Your task to perform on an android device: Open a new tab in Chrome Image 0: 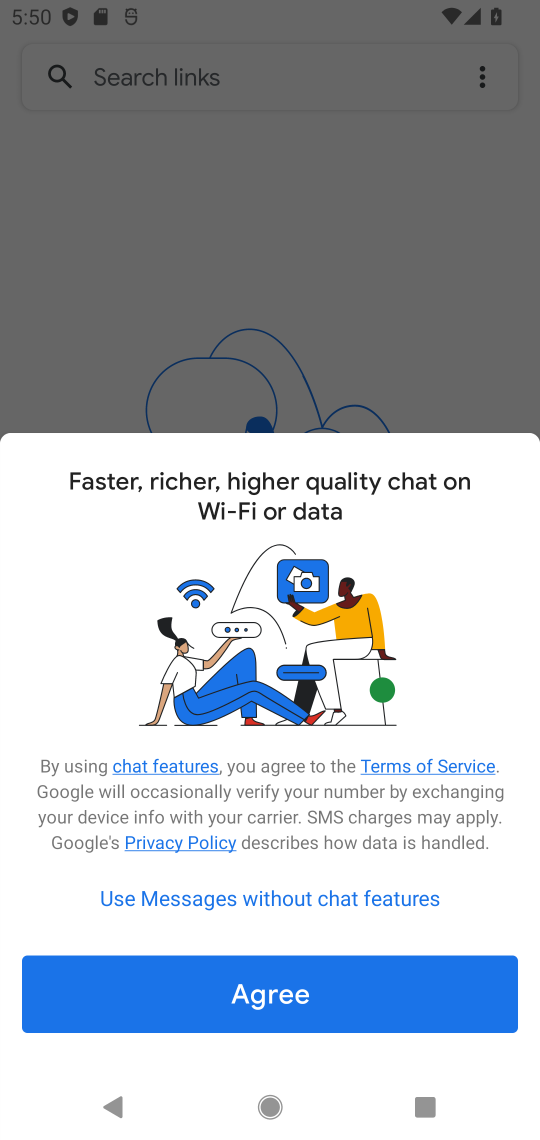
Step 0: press home button
Your task to perform on an android device: Open a new tab in Chrome Image 1: 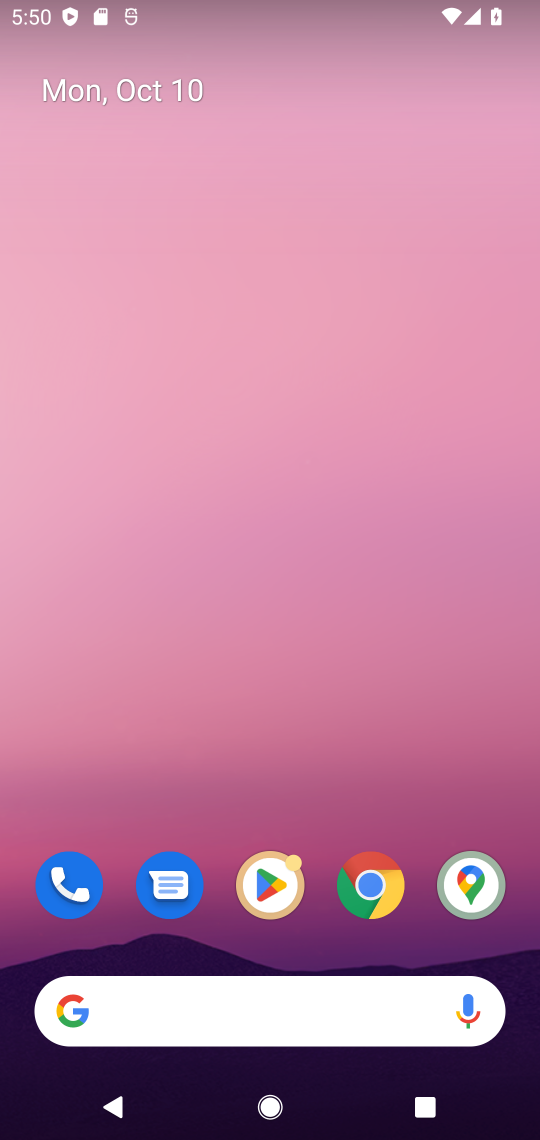
Step 1: click (374, 898)
Your task to perform on an android device: Open a new tab in Chrome Image 2: 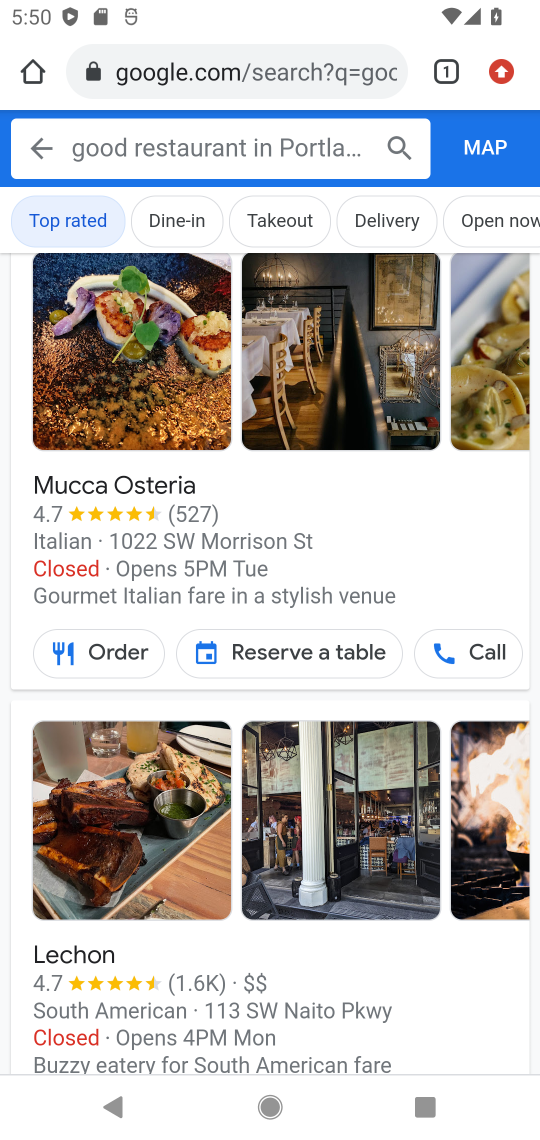
Step 2: click (38, 73)
Your task to perform on an android device: Open a new tab in Chrome Image 3: 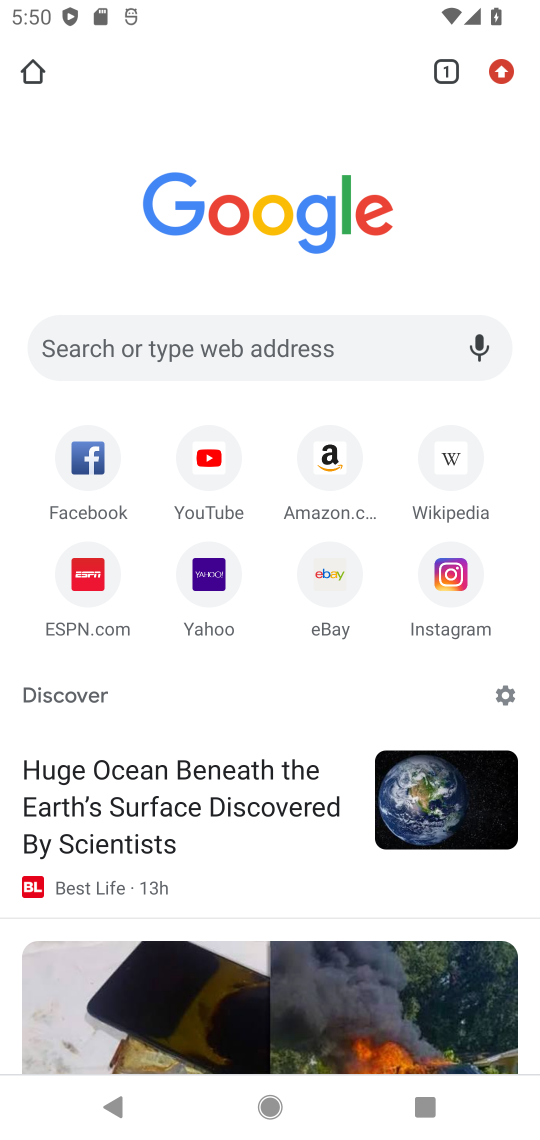
Step 3: click (495, 74)
Your task to perform on an android device: Open a new tab in Chrome Image 4: 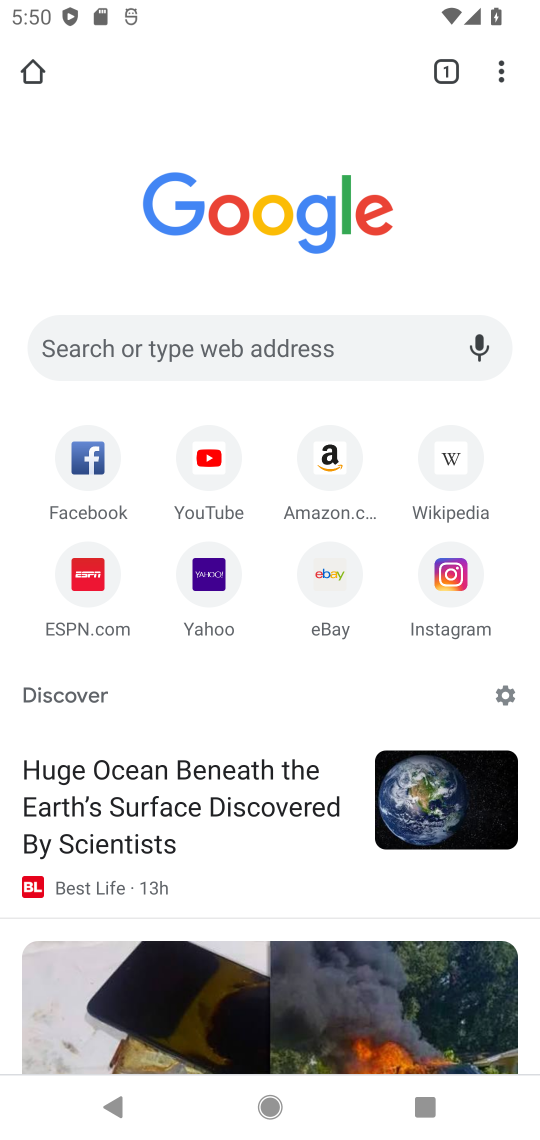
Step 4: click (506, 69)
Your task to perform on an android device: Open a new tab in Chrome Image 5: 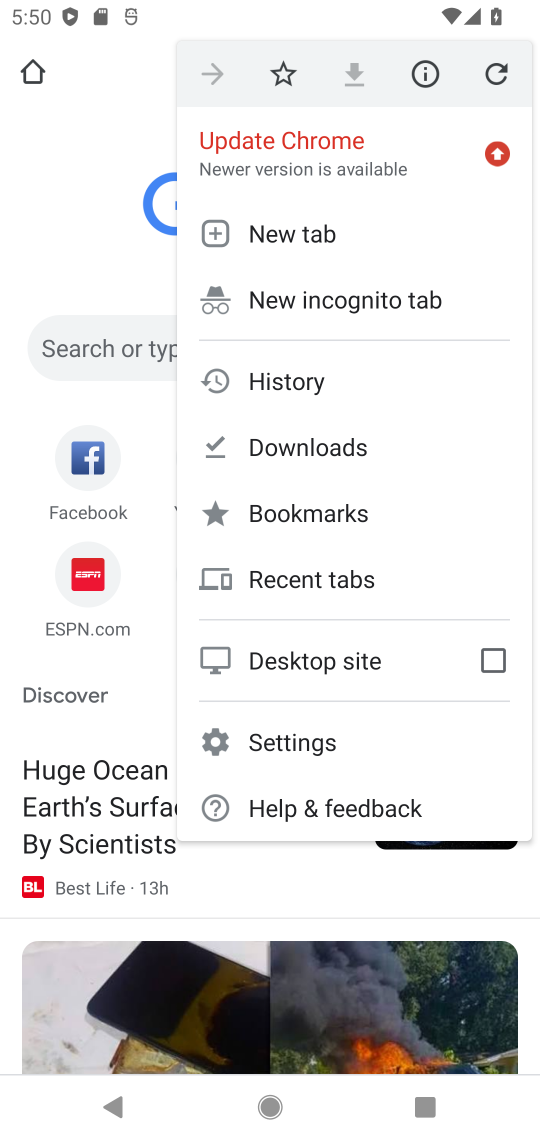
Step 5: click (305, 236)
Your task to perform on an android device: Open a new tab in Chrome Image 6: 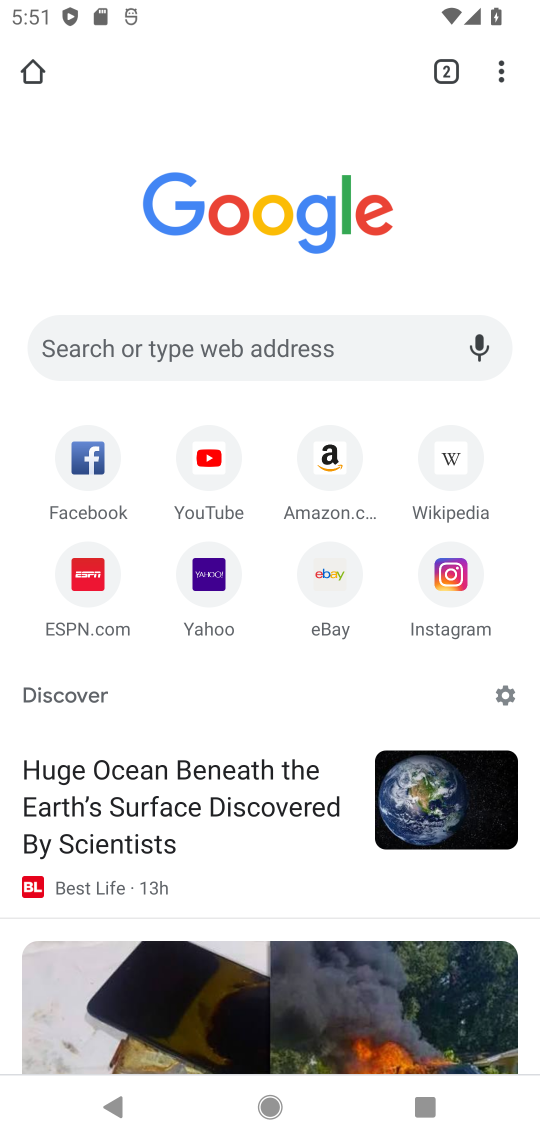
Step 6: task complete